Your task to perform on an android device: Open settings Image 0: 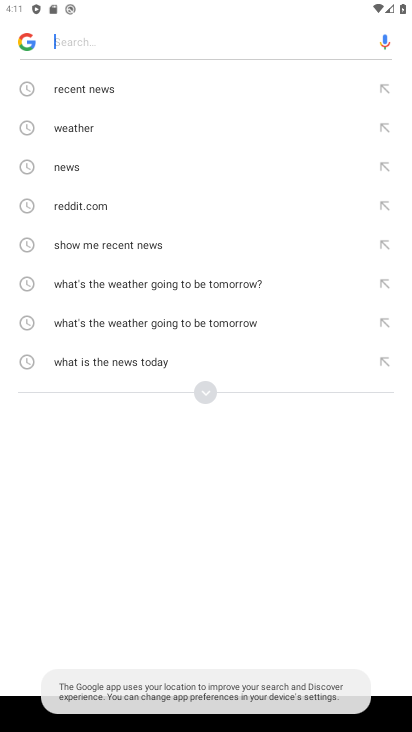
Step 0: press home button
Your task to perform on an android device: Open settings Image 1: 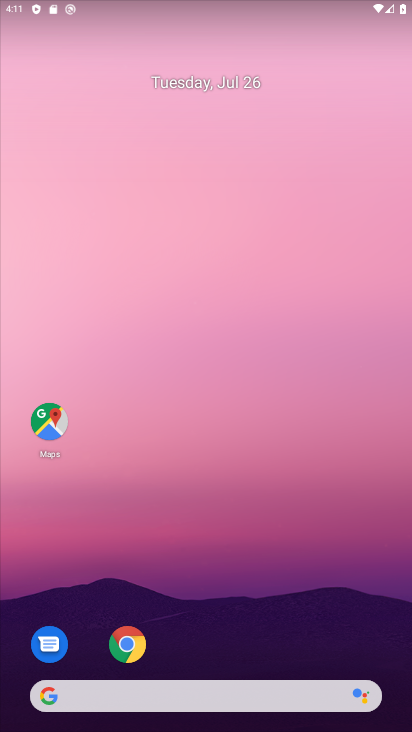
Step 1: drag from (249, 639) to (192, 43)
Your task to perform on an android device: Open settings Image 2: 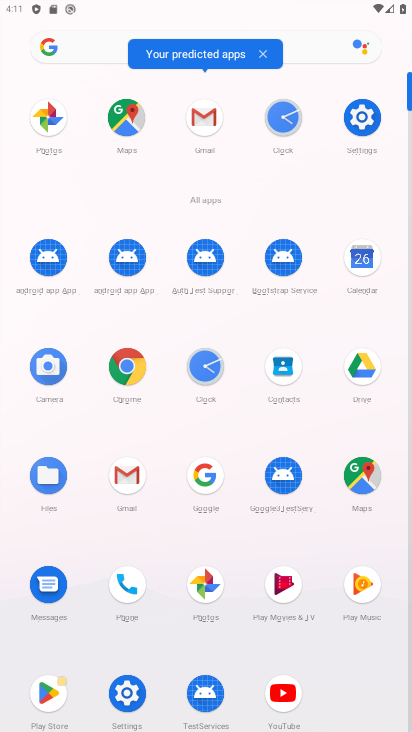
Step 2: click (368, 112)
Your task to perform on an android device: Open settings Image 3: 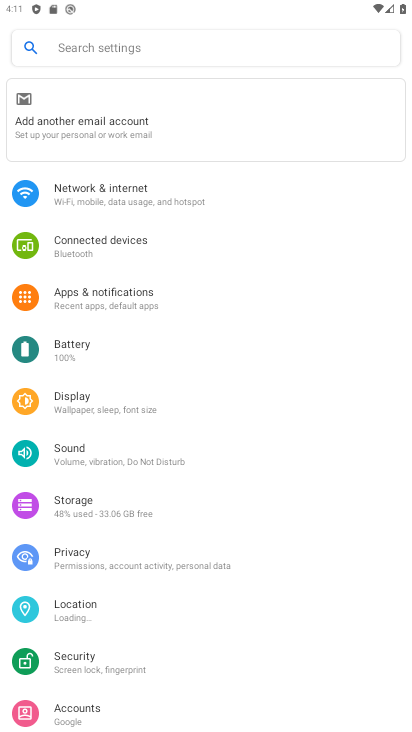
Step 3: task complete